Your task to perform on an android device: Go to display settings Image 0: 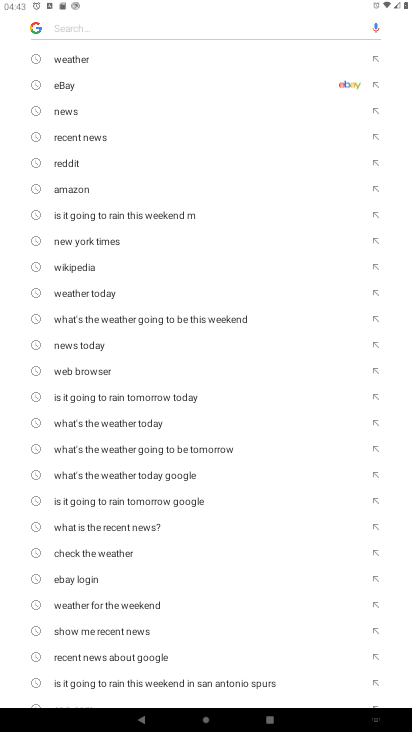
Step 0: press home button
Your task to perform on an android device: Go to display settings Image 1: 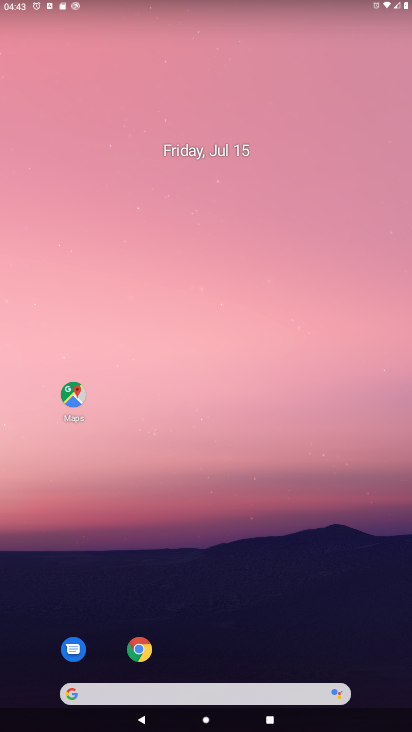
Step 1: drag from (387, 670) to (340, 145)
Your task to perform on an android device: Go to display settings Image 2: 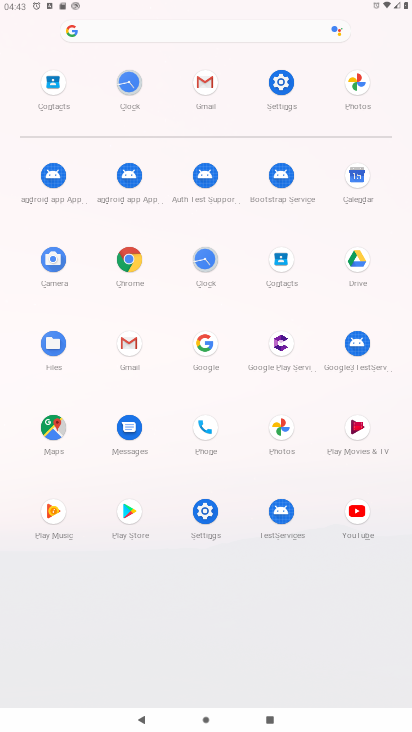
Step 2: click (207, 512)
Your task to perform on an android device: Go to display settings Image 3: 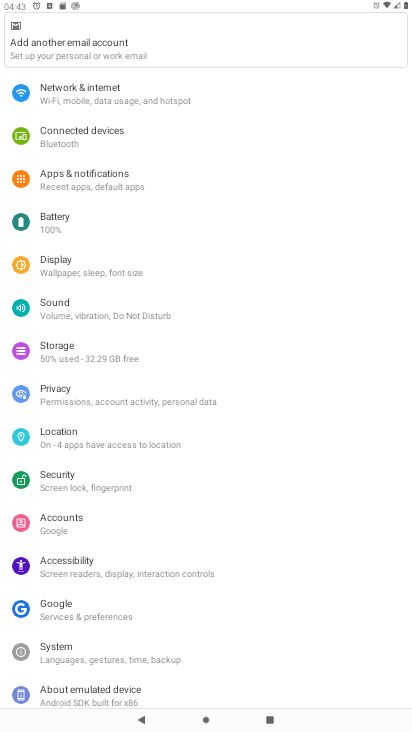
Step 3: click (66, 263)
Your task to perform on an android device: Go to display settings Image 4: 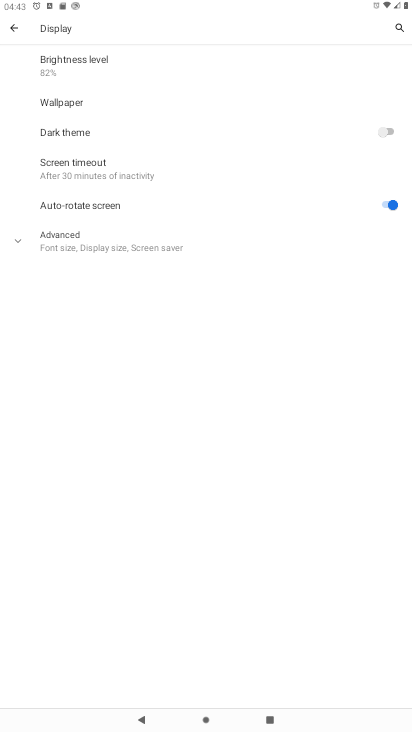
Step 4: click (18, 242)
Your task to perform on an android device: Go to display settings Image 5: 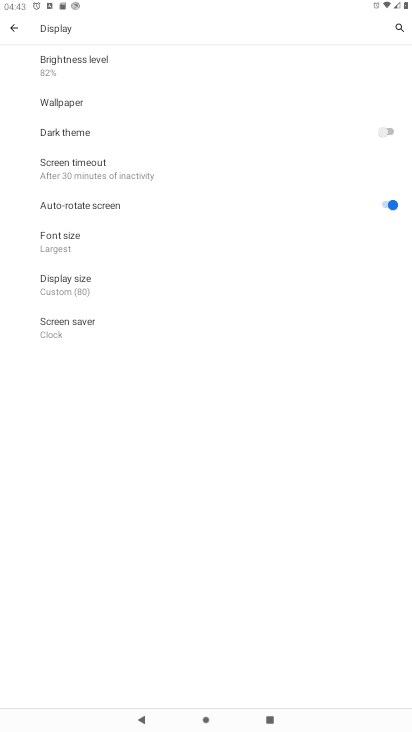
Step 5: task complete